Your task to perform on an android device: change your default location settings in chrome Image 0: 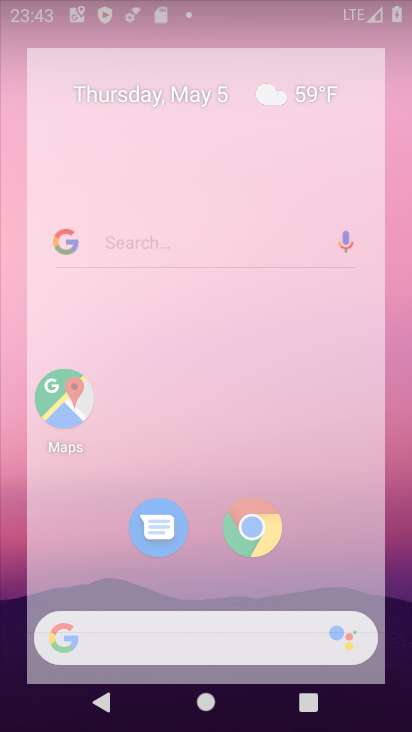
Step 0: click (261, 529)
Your task to perform on an android device: change your default location settings in chrome Image 1: 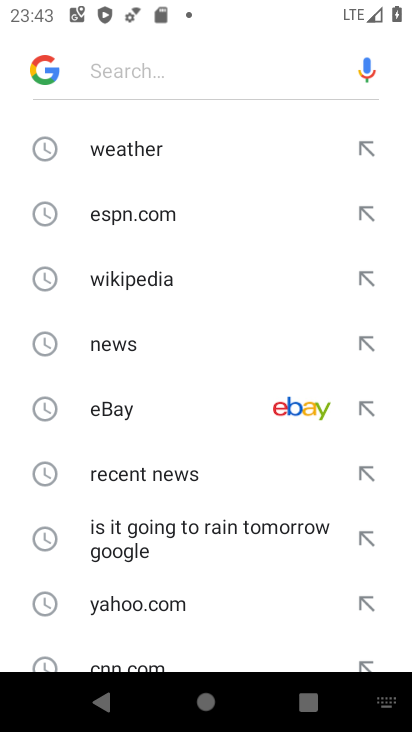
Step 1: press home button
Your task to perform on an android device: change your default location settings in chrome Image 2: 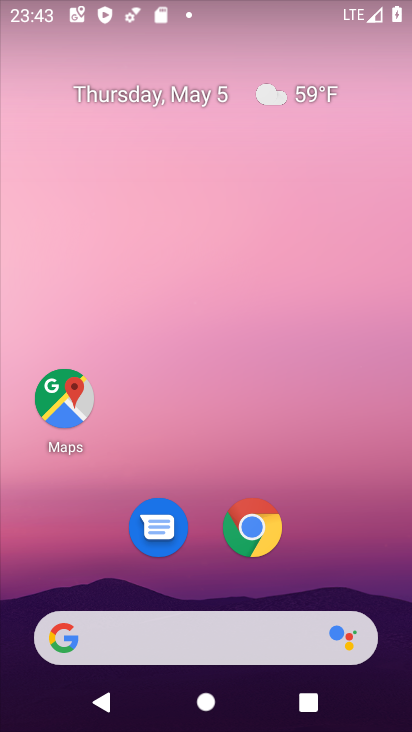
Step 2: drag from (228, 564) to (241, 163)
Your task to perform on an android device: change your default location settings in chrome Image 3: 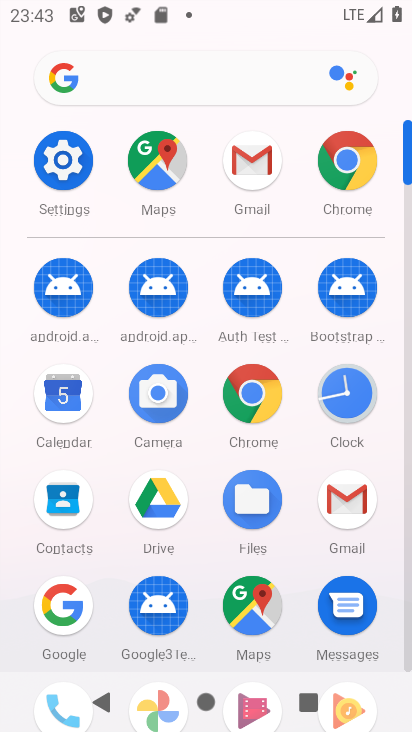
Step 3: click (334, 159)
Your task to perform on an android device: change your default location settings in chrome Image 4: 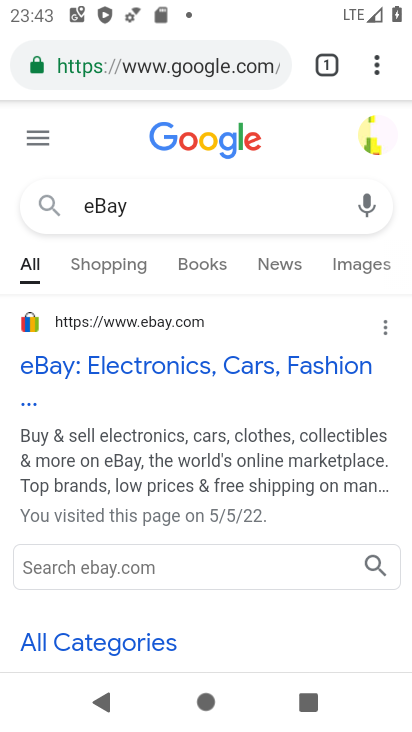
Step 4: click (377, 70)
Your task to perform on an android device: change your default location settings in chrome Image 5: 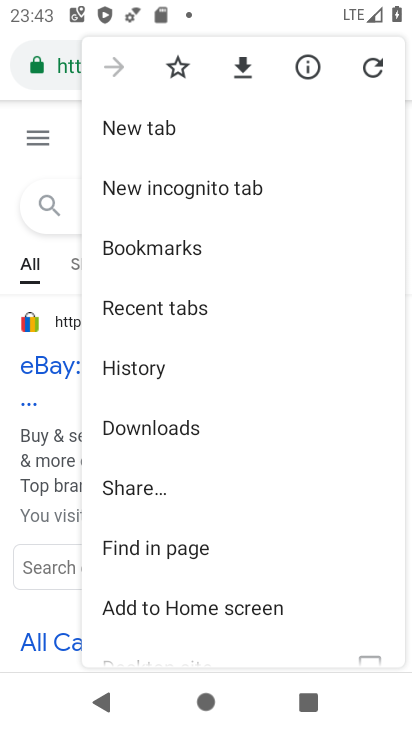
Step 5: drag from (171, 591) to (230, 233)
Your task to perform on an android device: change your default location settings in chrome Image 6: 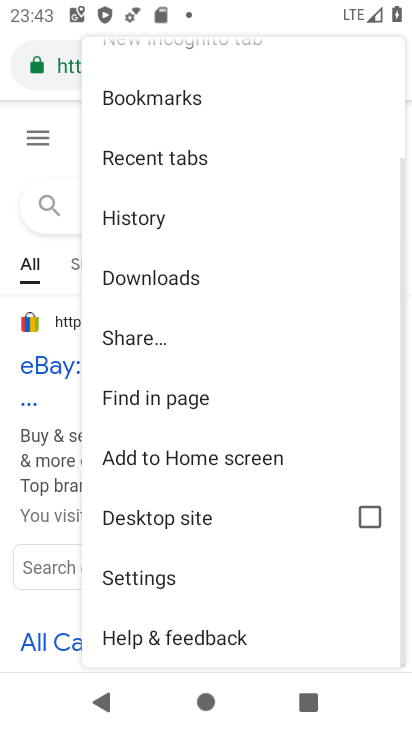
Step 6: click (154, 581)
Your task to perform on an android device: change your default location settings in chrome Image 7: 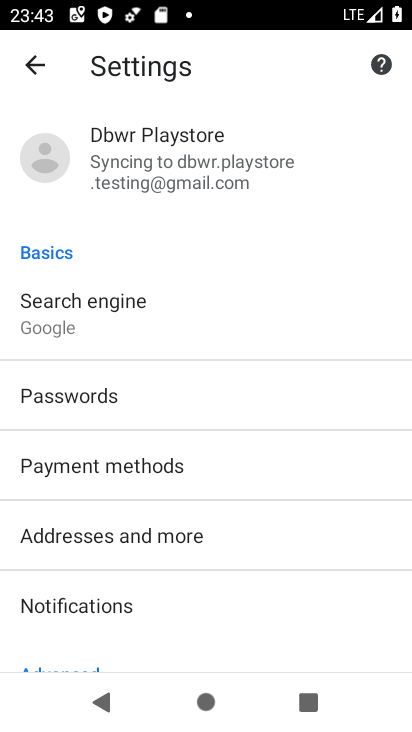
Step 7: drag from (147, 584) to (199, 291)
Your task to perform on an android device: change your default location settings in chrome Image 8: 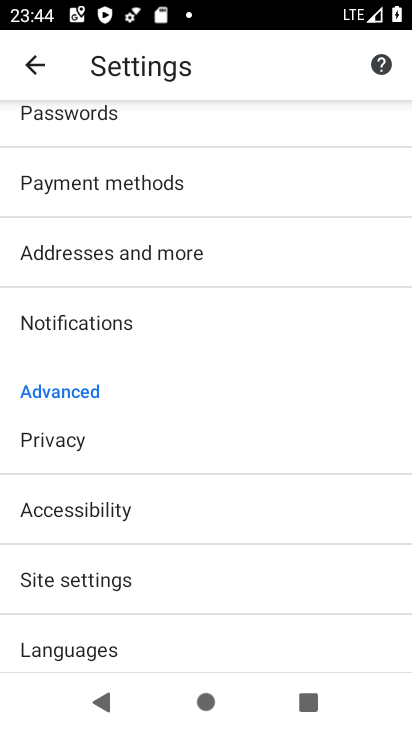
Step 8: drag from (125, 611) to (187, 438)
Your task to perform on an android device: change your default location settings in chrome Image 9: 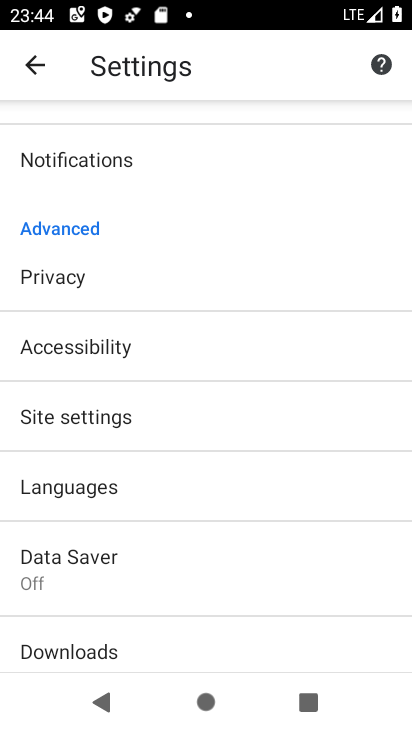
Step 9: click (103, 422)
Your task to perform on an android device: change your default location settings in chrome Image 10: 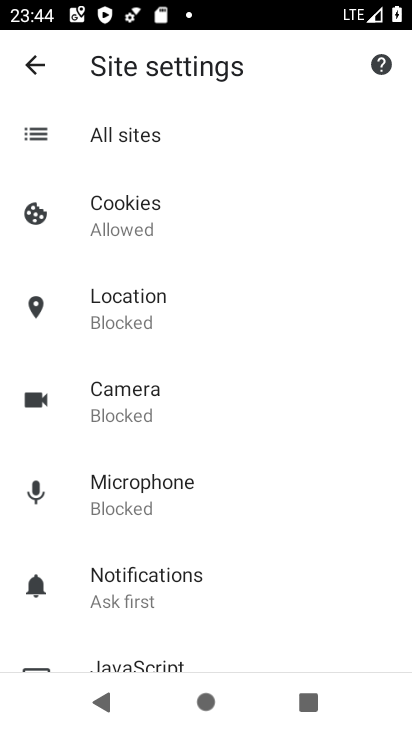
Step 10: click (134, 332)
Your task to perform on an android device: change your default location settings in chrome Image 11: 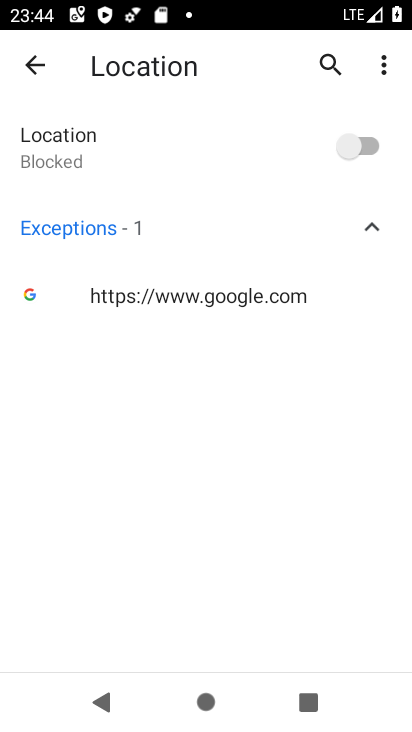
Step 11: click (356, 144)
Your task to perform on an android device: change your default location settings in chrome Image 12: 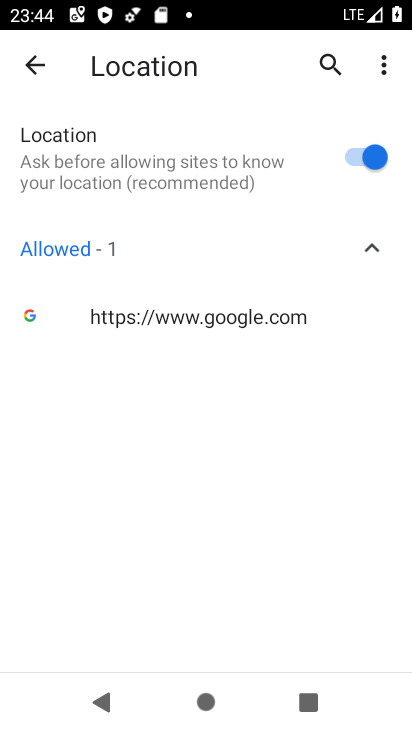
Step 12: task complete